Your task to perform on an android device: find which apps use the phone's location Image 0: 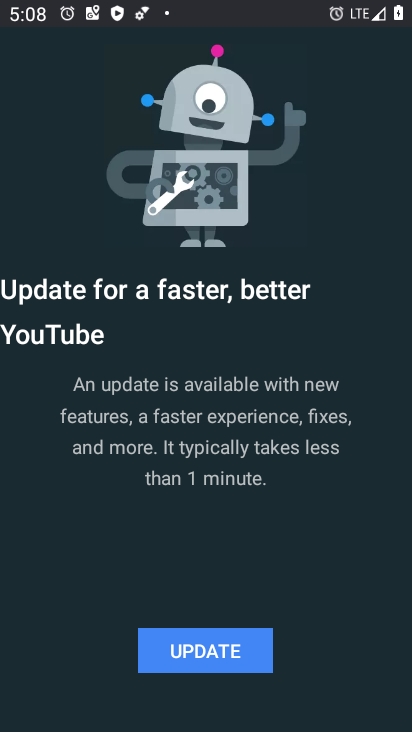
Step 0: press home button
Your task to perform on an android device: find which apps use the phone's location Image 1: 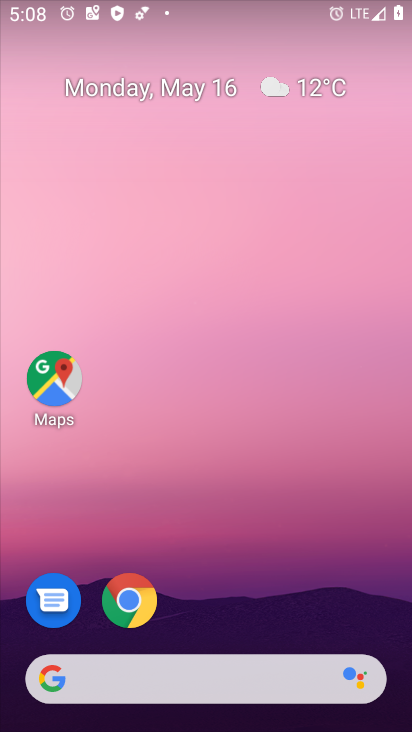
Step 1: drag from (169, 626) to (171, 267)
Your task to perform on an android device: find which apps use the phone's location Image 2: 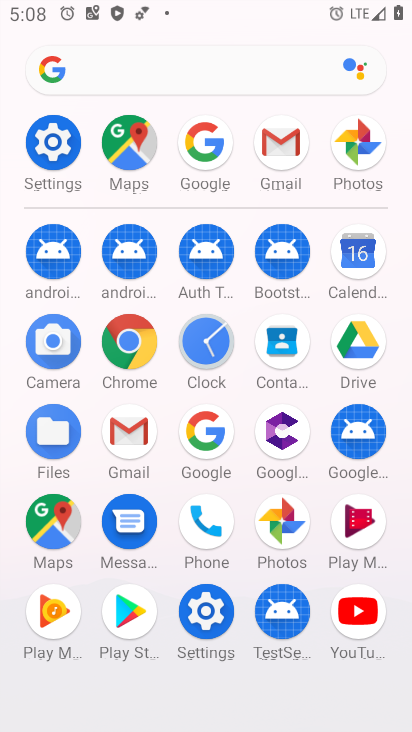
Step 2: click (52, 138)
Your task to perform on an android device: find which apps use the phone's location Image 3: 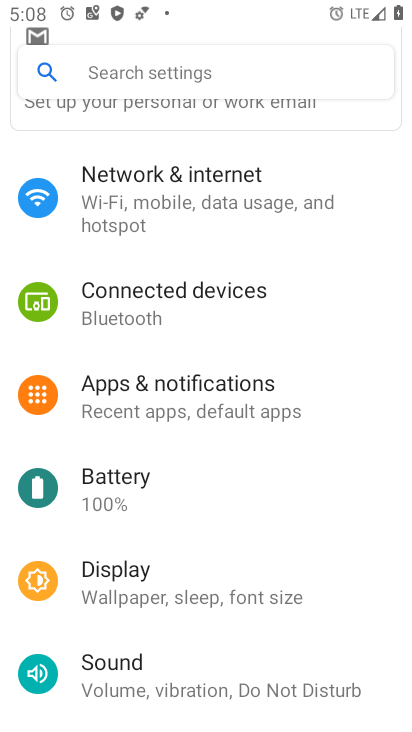
Step 3: drag from (188, 691) to (187, 293)
Your task to perform on an android device: find which apps use the phone's location Image 4: 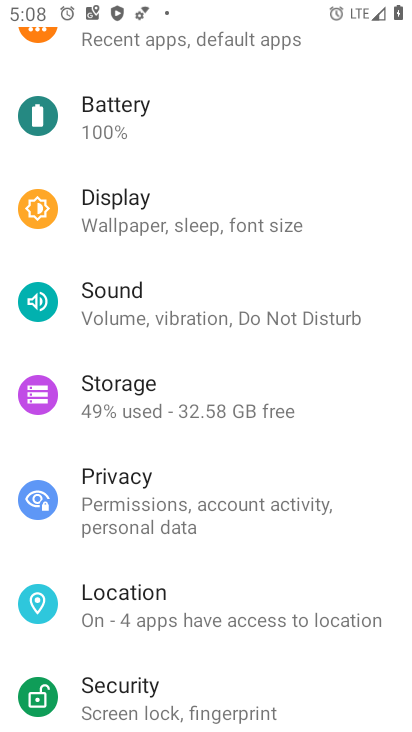
Step 4: click (195, 601)
Your task to perform on an android device: find which apps use the phone's location Image 5: 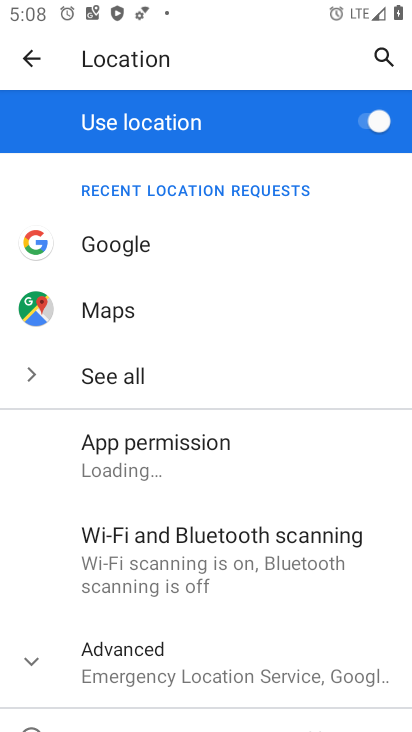
Step 5: click (144, 463)
Your task to perform on an android device: find which apps use the phone's location Image 6: 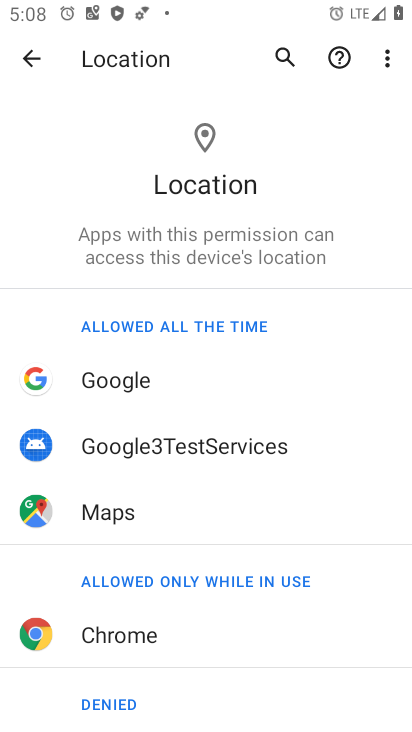
Step 6: task complete